Your task to perform on an android device: empty trash in the gmail app Image 0: 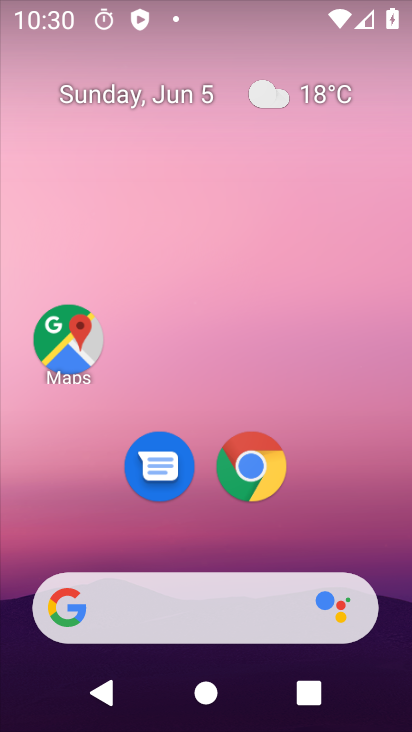
Step 0: drag from (346, 523) to (265, 122)
Your task to perform on an android device: empty trash in the gmail app Image 1: 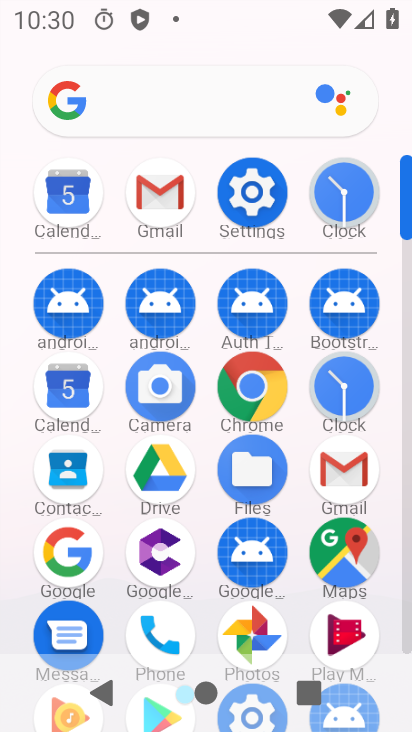
Step 1: click (161, 188)
Your task to perform on an android device: empty trash in the gmail app Image 2: 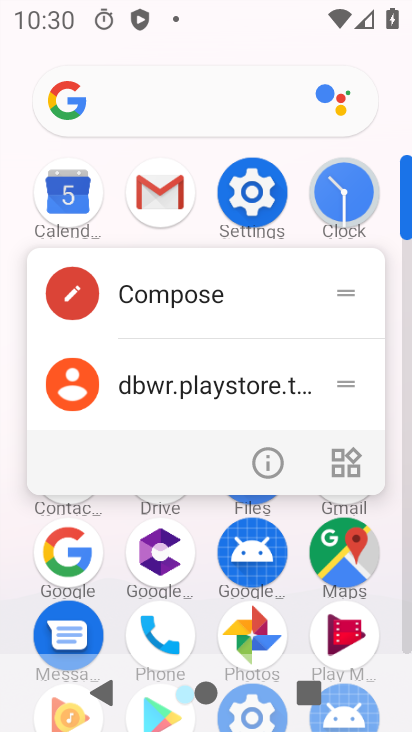
Step 2: click (162, 188)
Your task to perform on an android device: empty trash in the gmail app Image 3: 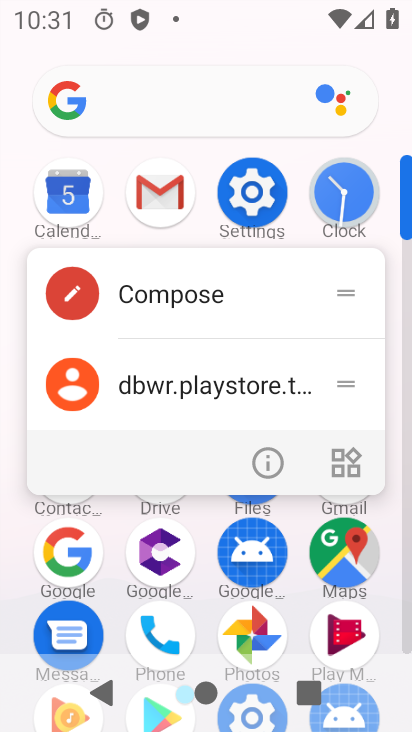
Step 3: click (162, 188)
Your task to perform on an android device: empty trash in the gmail app Image 4: 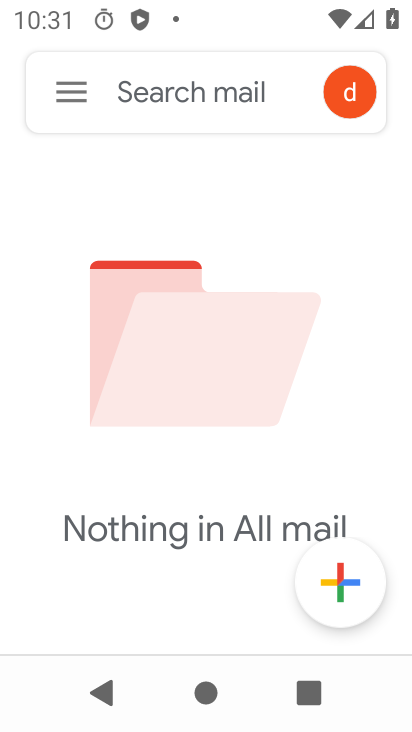
Step 4: click (77, 82)
Your task to perform on an android device: empty trash in the gmail app Image 5: 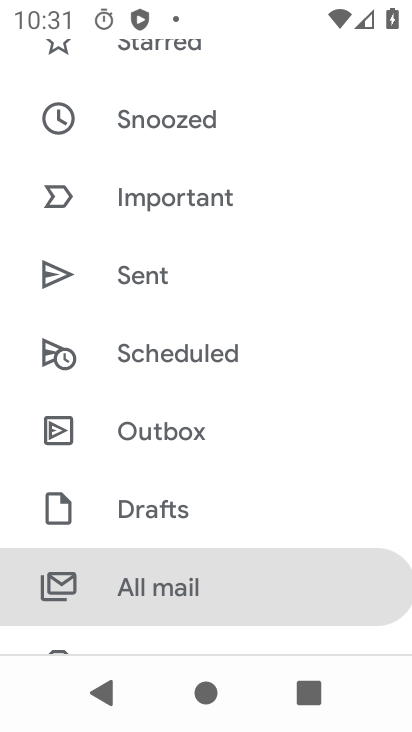
Step 5: drag from (256, 274) to (308, 525)
Your task to perform on an android device: empty trash in the gmail app Image 6: 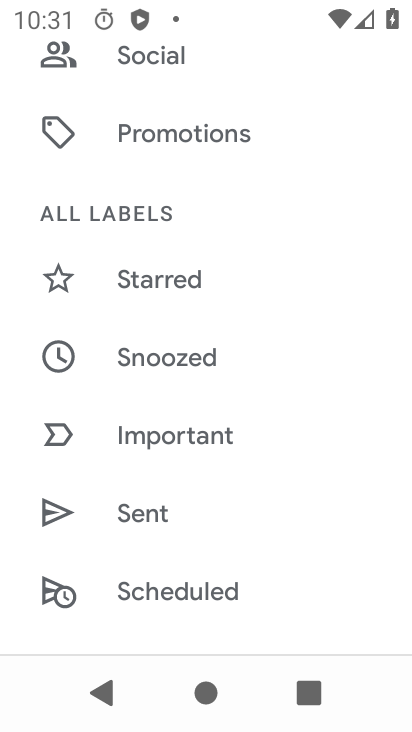
Step 6: drag from (269, 501) to (290, 408)
Your task to perform on an android device: empty trash in the gmail app Image 7: 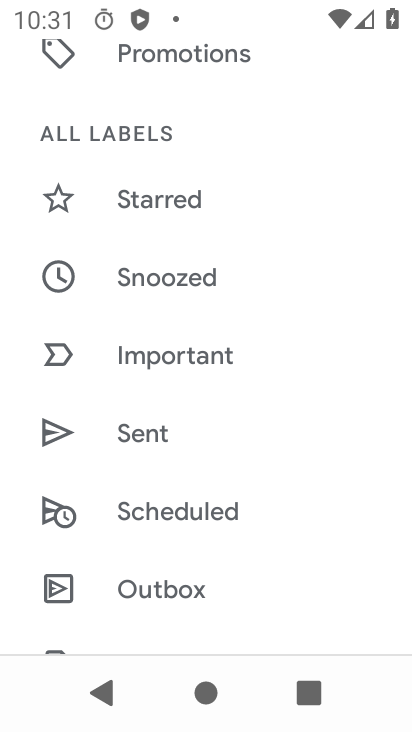
Step 7: drag from (217, 551) to (210, 424)
Your task to perform on an android device: empty trash in the gmail app Image 8: 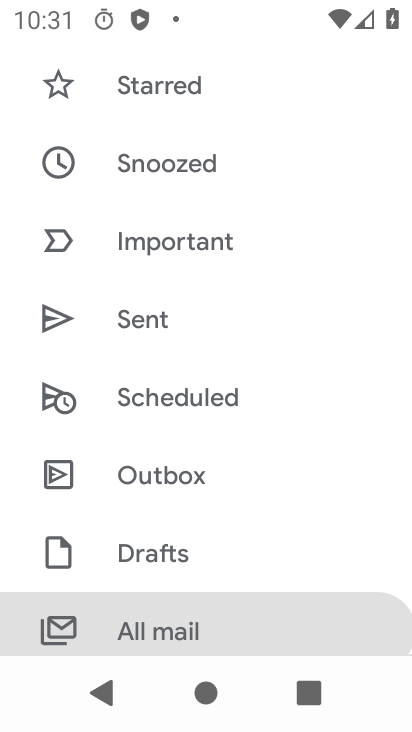
Step 8: drag from (225, 559) to (328, 289)
Your task to perform on an android device: empty trash in the gmail app Image 9: 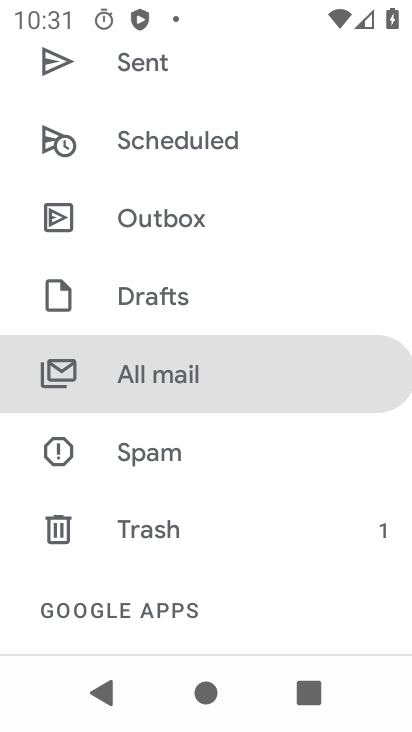
Step 9: click (200, 523)
Your task to perform on an android device: empty trash in the gmail app Image 10: 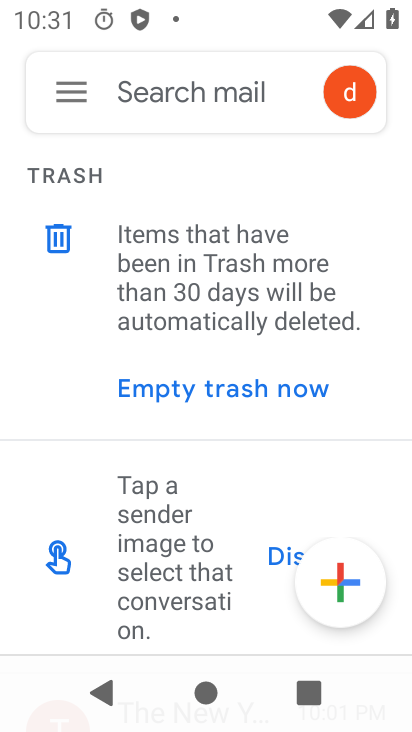
Step 10: click (61, 237)
Your task to perform on an android device: empty trash in the gmail app Image 11: 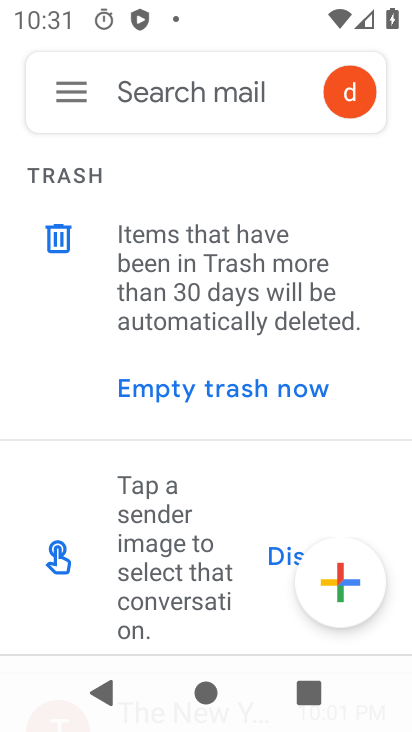
Step 11: click (65, 238)
Your task to perform on an android device: empty trash in the gmail app Image 12: 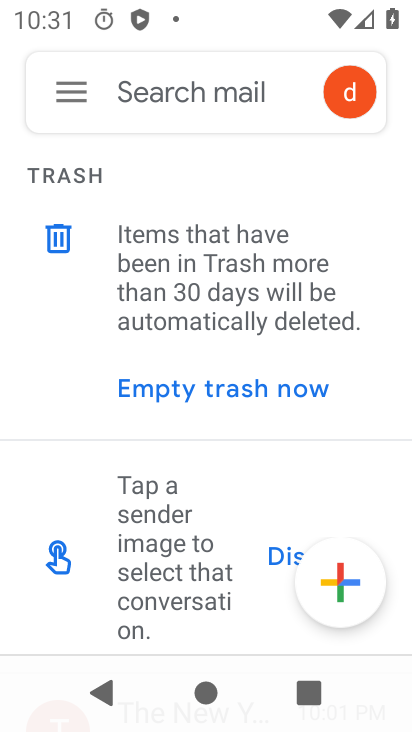
Step 12: click (59, 240)
Your task to perform on an android device: empty trash in the gmail app Image 13: 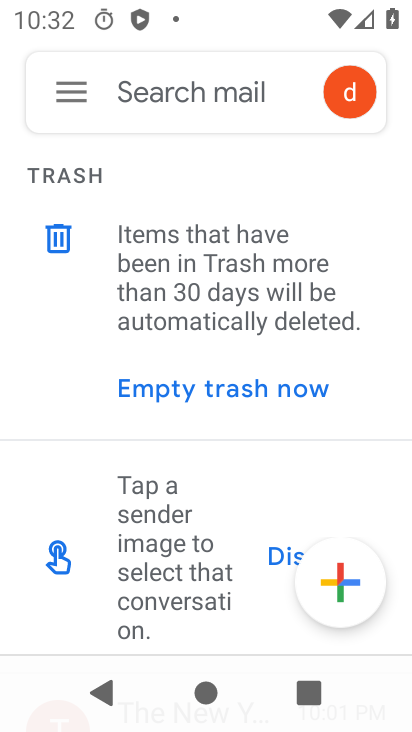
Step 13: click (172, 396)
Your task to perform on an android device: empty trash in the gmail app Image 14: 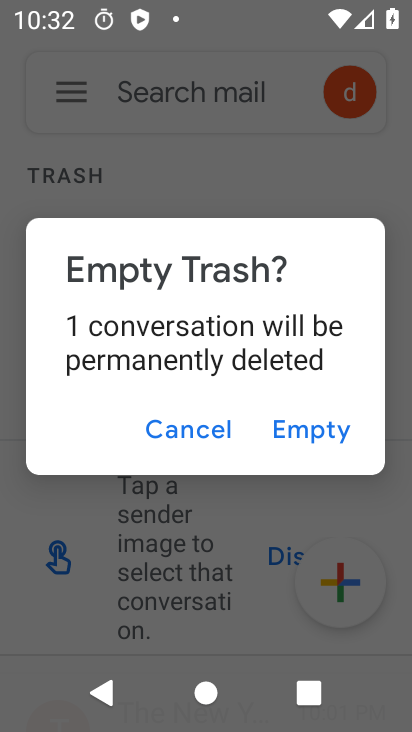
Step 14: click (309, 432)
Your task to perform on an android device: empty trash in the gmail app Image 15: 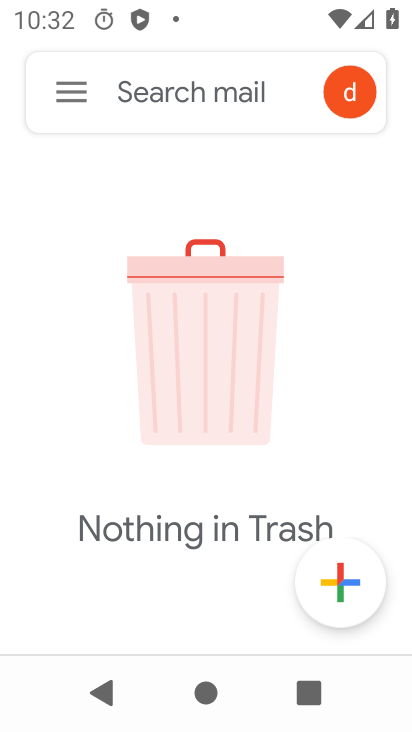
Step 15: task complete